Your task to perform on an android device: Search for Italian restaurants on Maps Image 0: 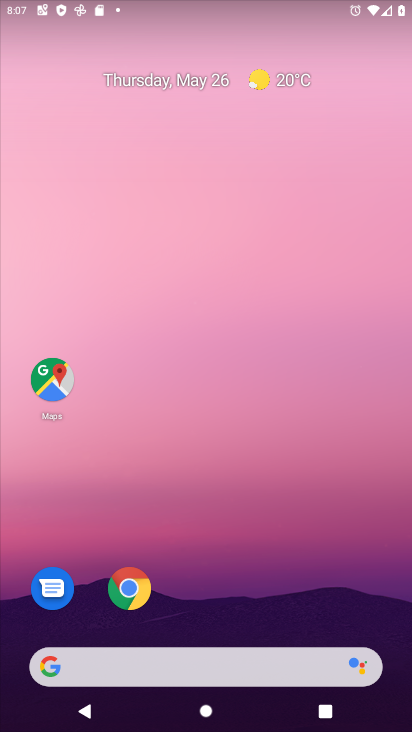
Step 0: drag from (386, 619) to (209, 6)
Your task to perform on an android device: Search for Italian restaurants on Maps Image 1: 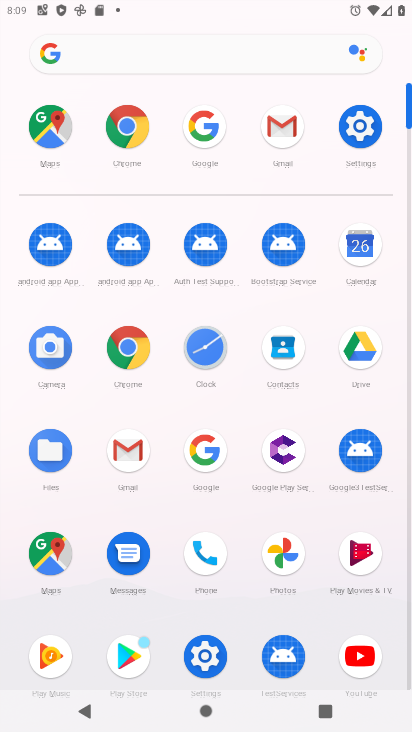
Step 1: click (52, 525)
Your task to perform on an android device: Search for Italian restaurants on Maps Image 2: 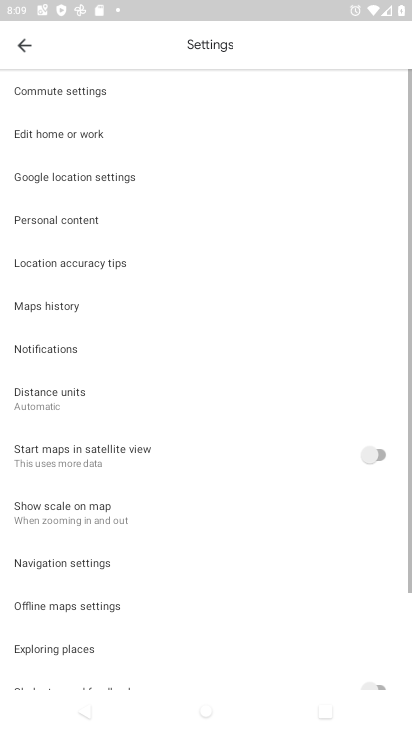
Step 2: press back button
Your task to perform on an android device: Search for Italian restaurants on Maps Image 3: 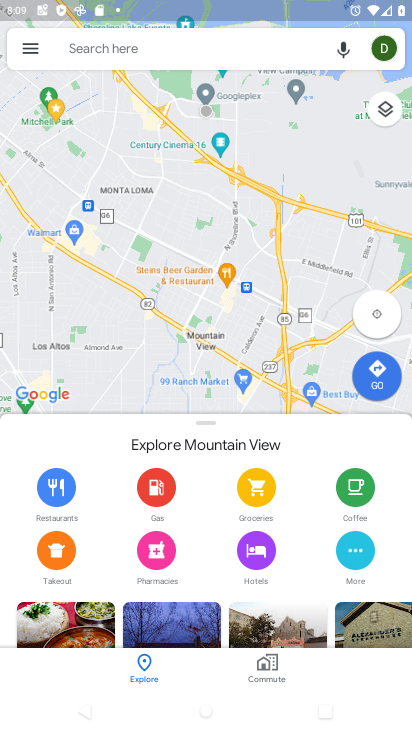
Step 3: click (140, 52)
Your task to perform on an android device: Search for Italian restaurants on Maps Image 4: 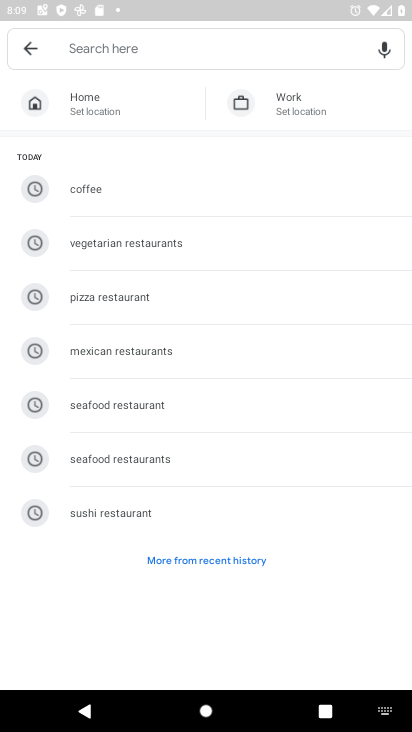
Step 4: click (180, 558)
Your task to perform on an android device: Search for Italian restaurants on Maps Image 5: 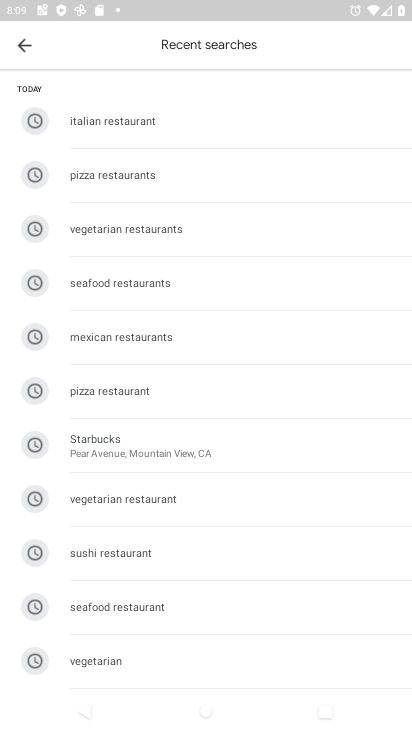
Step 5: click (127, 132)
Your task to perform on an android device: Search for Italian restaurants on Maps Image 6: 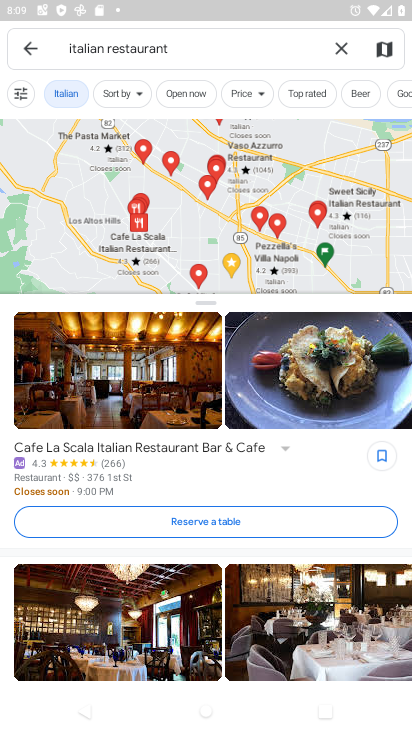
Step 6: task complete